Your task to perform on an android device: snooze an email in the gmail app Image 0: 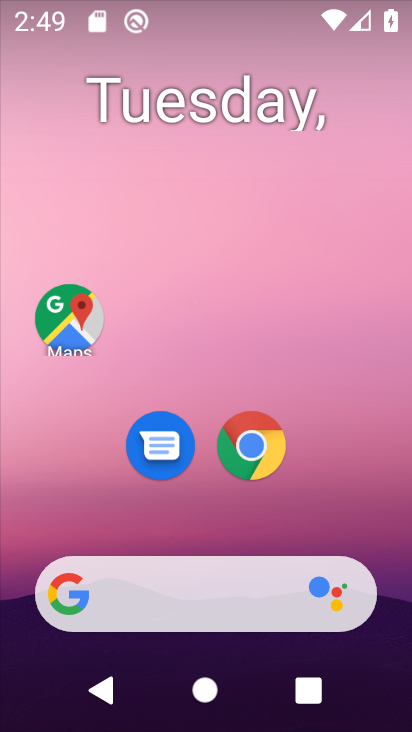
Step 0: press home button
Your task to perform on an android device: snooze an email in the gmail app Image 1: 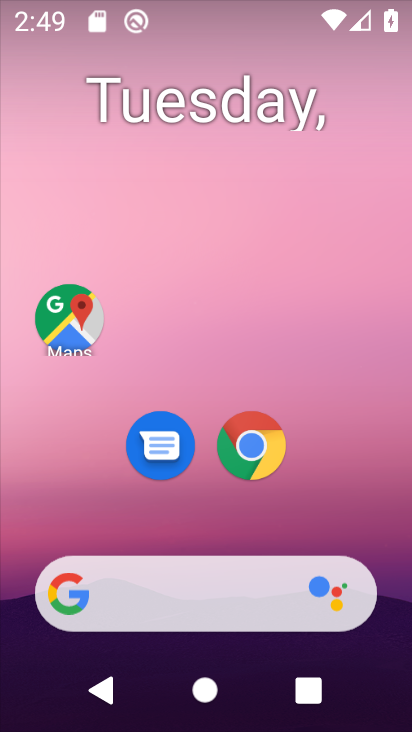
Step 1: drag from (361, 337) to (356, 7)
Your task to perform on an android device: snooze an email in the gmail app Image 2: 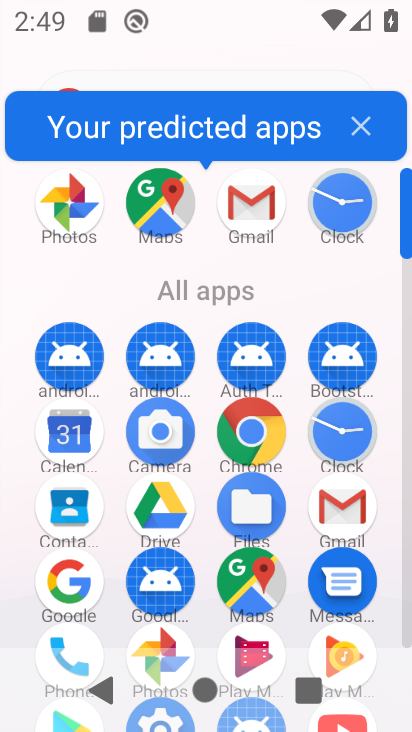
Step 2: click (239, 219)
Your task to perform on an android device: snooze an email in the gmail app Image 3: 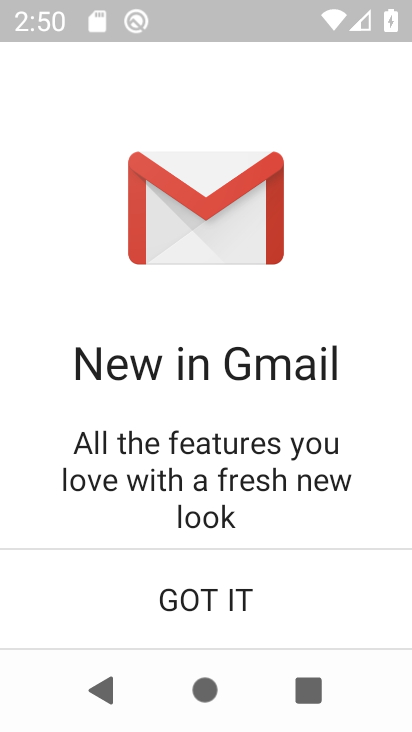
Step 3: click (195, 613)
Your task to perform on an android device: snooze an email in the gmail app Image 4: 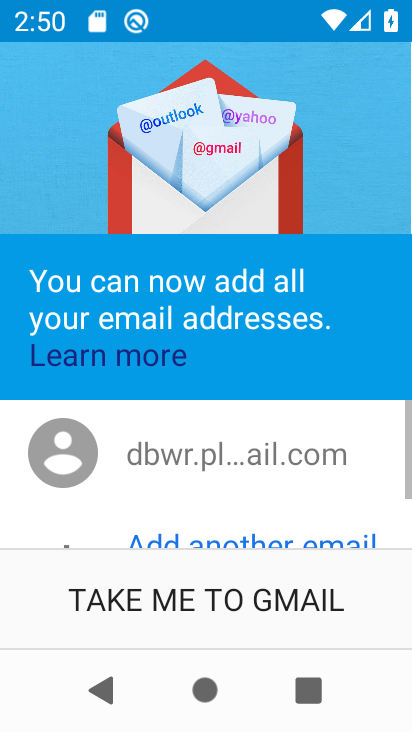
Step 4: click (195, 613)
Your task to perform on an android device: snooze an email in the gmail app Image 5: 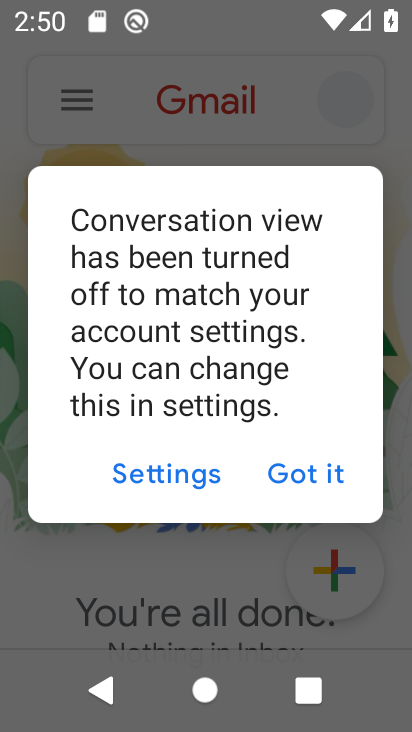
Step 5: click (317, 481)
Your task to perform on an android device: snooze an email in the gmail app Image 6: 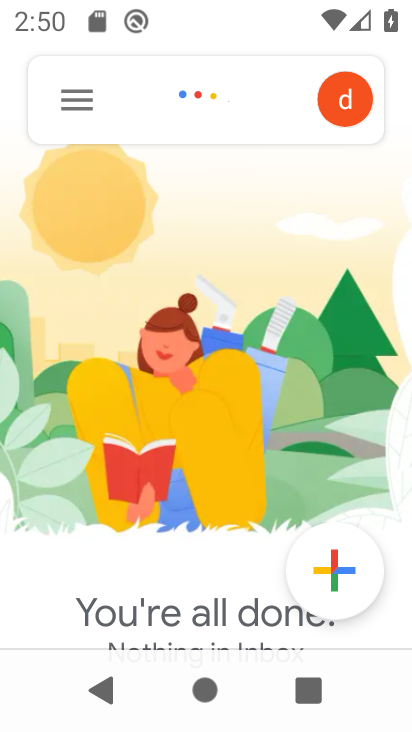
Step 6: click (59, 106)
Your task to perform on an android device: snooze an email in the gmail app Image 7: 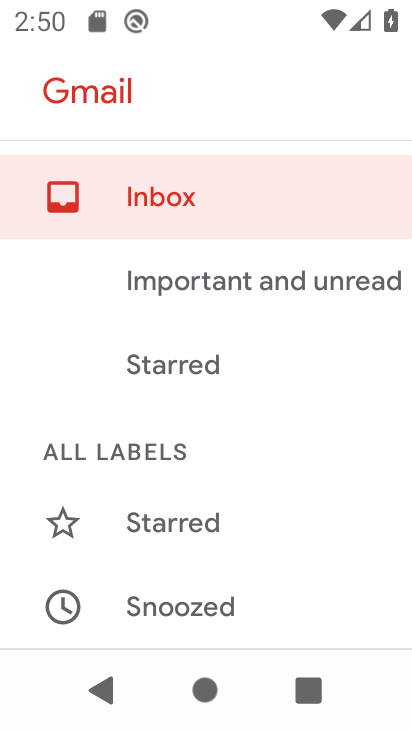
Step 7: drag from (201, 525) to (202, 59)
Your task to perform on an android device: snooze an email in the gmail app Image 8: 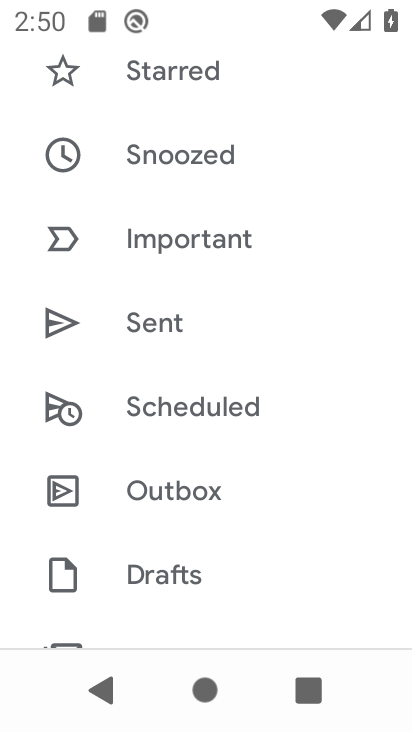
Step 8: drag from (170, 514) to (167, 85)
Your task to perform on an android device: snooze an email in the gmail app Image 9: 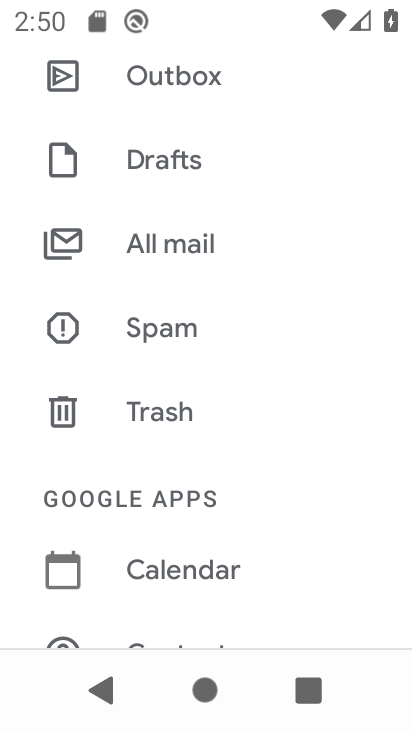
Step 9: drag from (140, 532) to (130, 389)
Your task to perform on an android device: snooze an email in the gmail app Image 10: 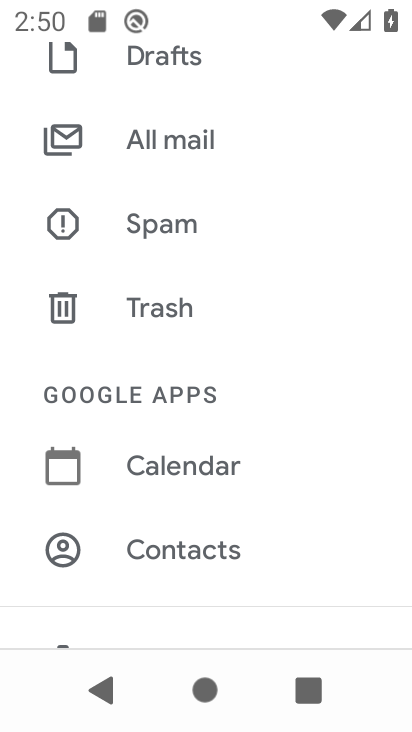
Step 10: click (152, 136)
Your task to perform on an android device: snooze an email in the gmail app Image 11: 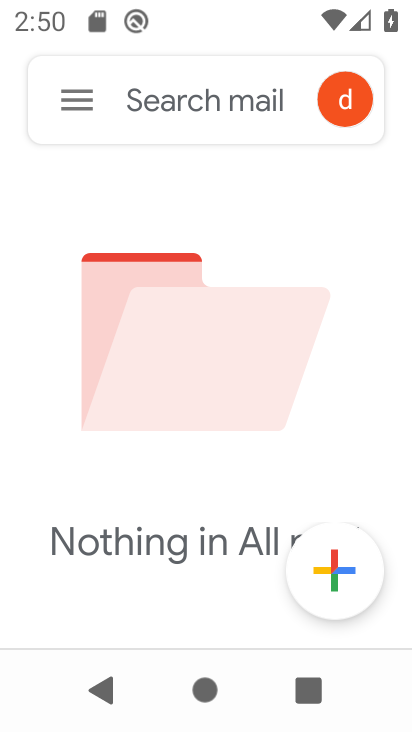
Step 11: task complete